Your task to perform on an android device: Open settings Image 0: 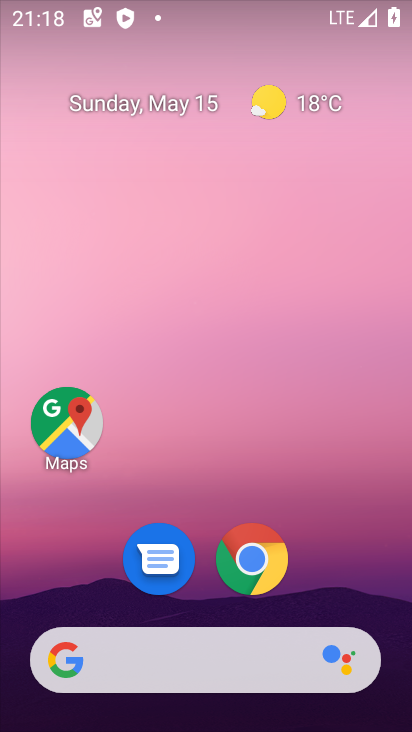
Step 0: drag from (317, 544) to (210, 193)
Your task to perform on an android device: Open settings Image 1: 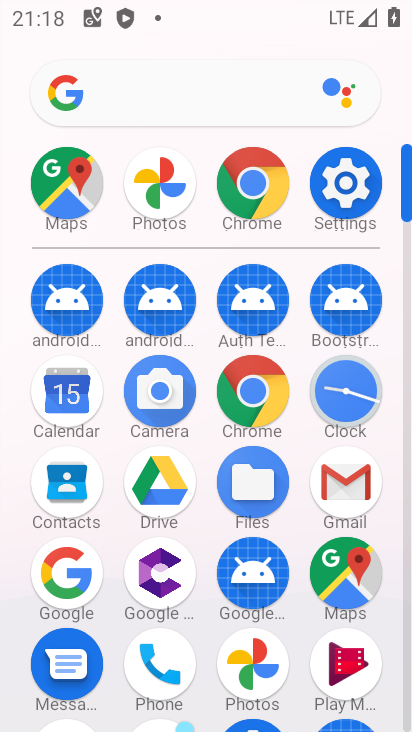
Step 1: click (350, 179)
Your task to perform on an android device: Open settings Image 2: 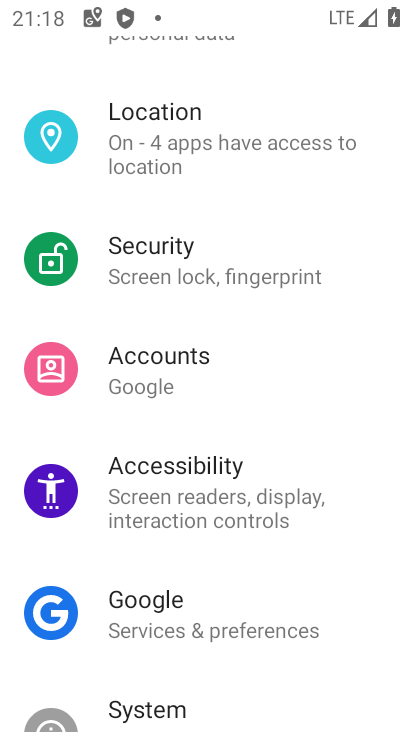
Step 2: task complete